Your task to perform on an android device: Open the web browser Image 0: 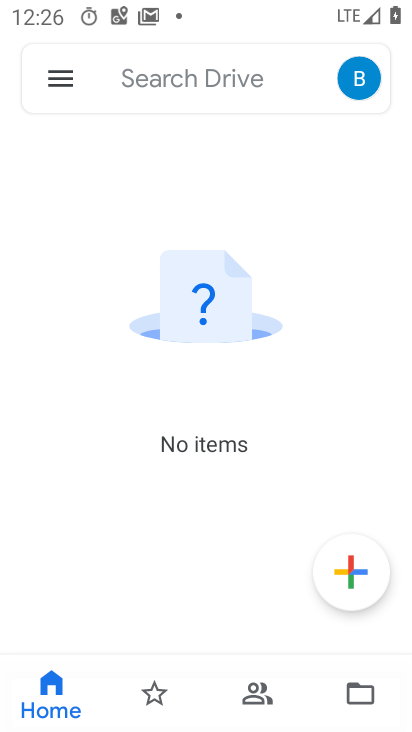
Step 0: press home button
Your task to perform on an android device: Open the web browser Image 1: 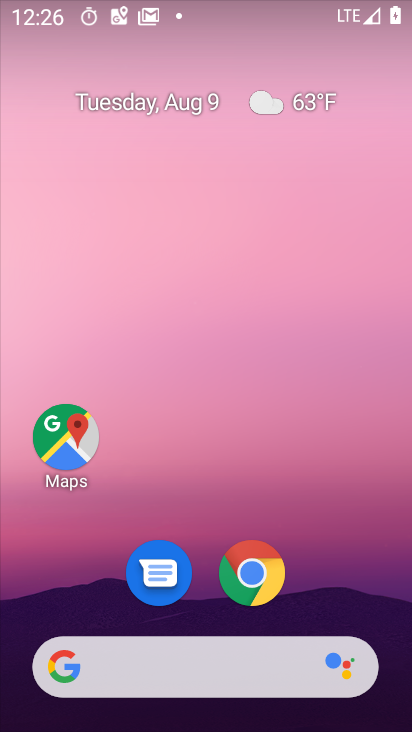
Step 1: click (240, 576)
Your task to perform on an android device: Open the web browser Image 2: 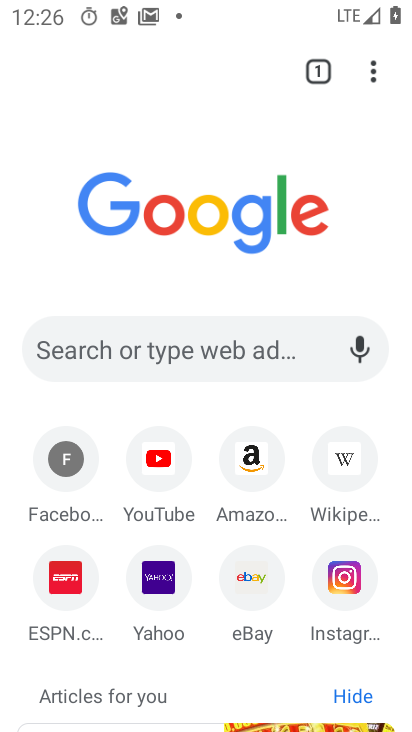
Step 2: task complete